Your task to perform on an android device: Open ESPN.com Image 0: 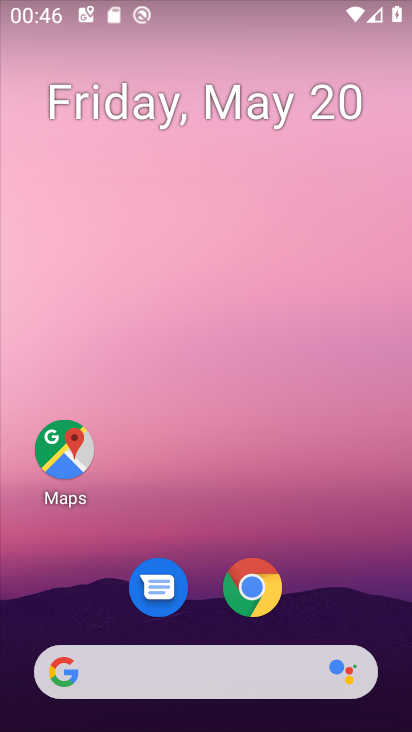
Step 0: drag from (371, 626) to (358, 139)
Your task to perform on an android device: Open ESPN.com Image 1: 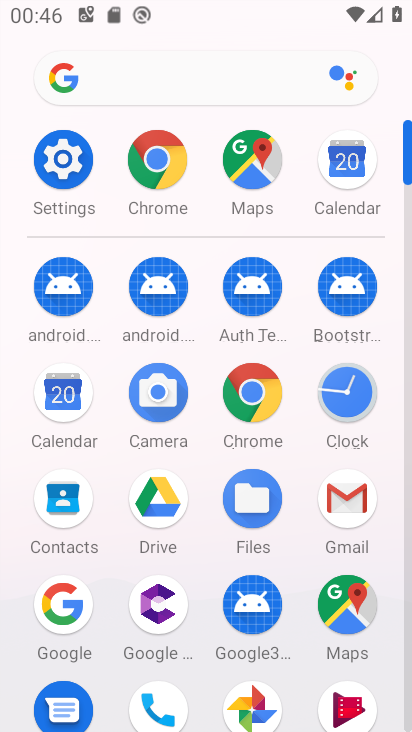
Step 1: click (266, 425)
Your task to perform on an android device: Open ESPN.com Image 2: 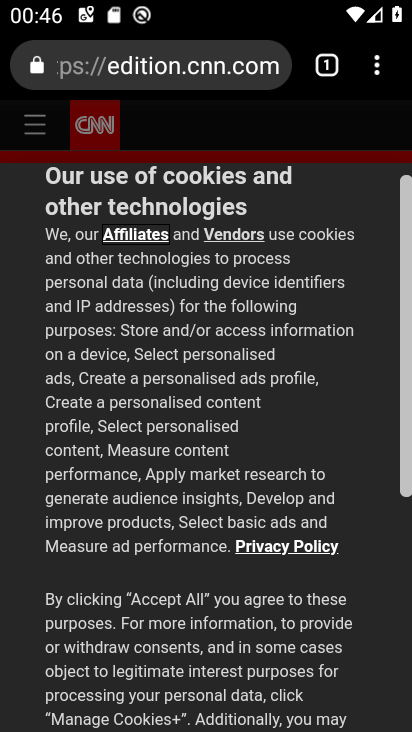
Step 2: press back button
Your task to perform on an android device: Open ESPN.com Image 3: 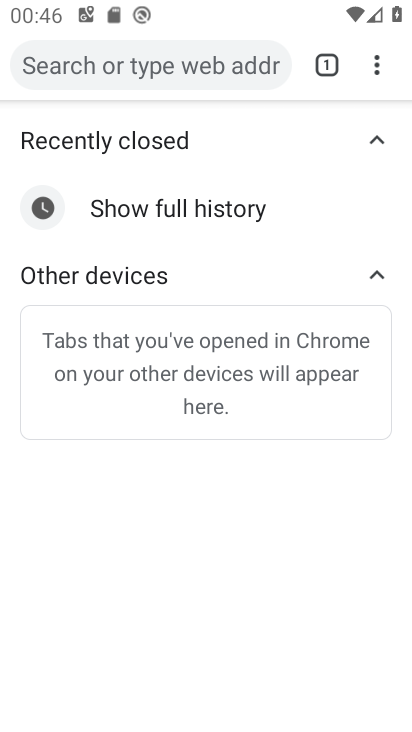
Step 3: click (239, 76)
Your task to perform on an android device: Open ESPN.com Image 4: 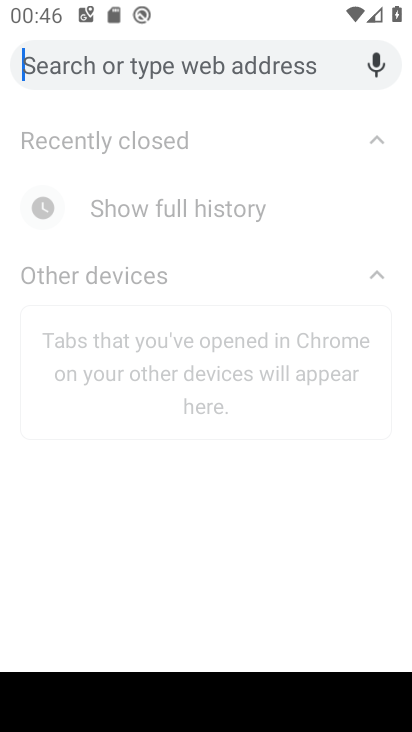
Step 4: type "espn"
Your task to perform on an android device: Open ESPN.com Image 5: 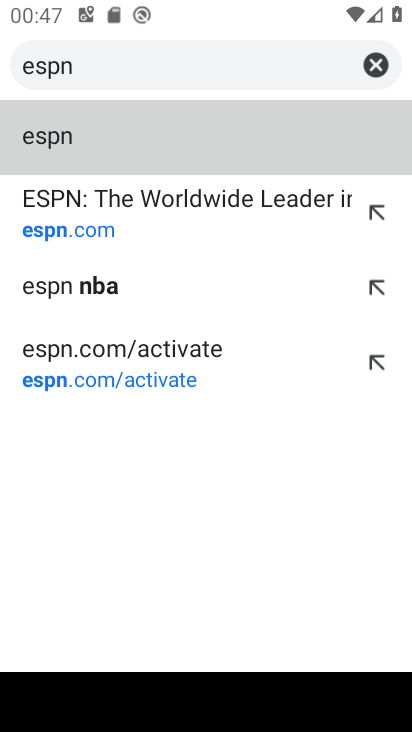
Step 5: click (45, 81)
Your task to perform on an android device: Open ESPN.com Image 6: 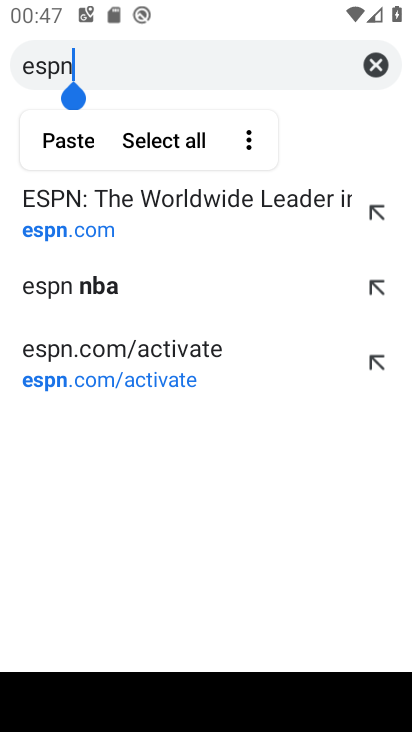
Step 6: click (57, 149)
Your task to perform on an android device: Open ESPN.com Image 7: 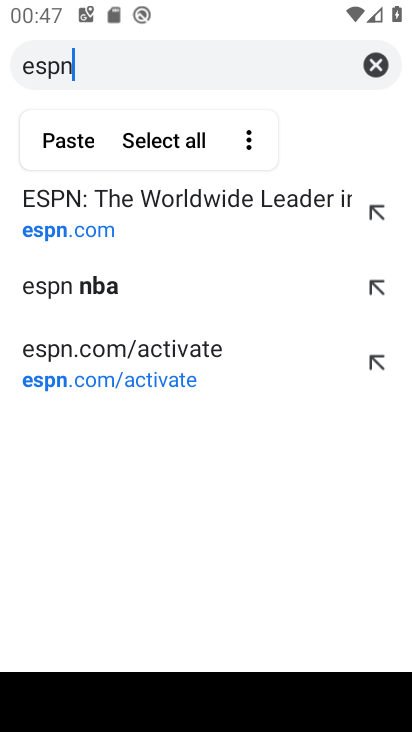
Step 7: click (145, 209)
Your task to perform on an android device: Open ESPN.com Image 8: 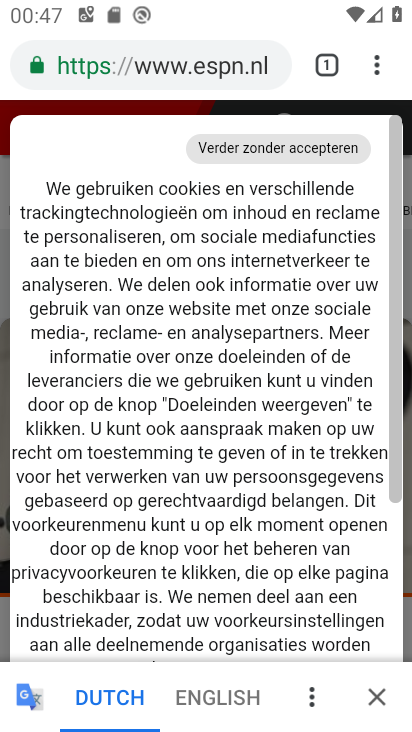
Step 8: task complete